Your task to perform on an android device: What's on my calendar today? Image 0: 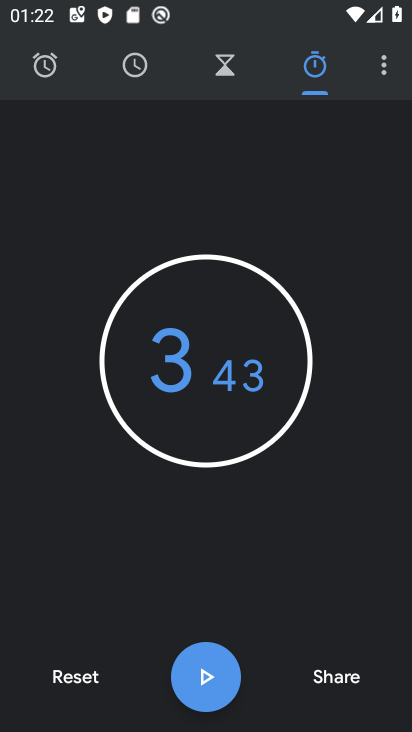
Step 0: press home button
Your task to perform on an android device: What's on my calendar today? Image 1: 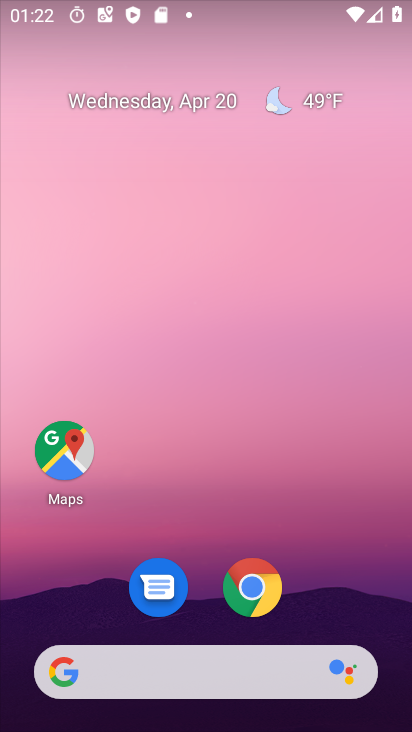
Step 1: drag from (355, 607) to (410, 575)
Your task to perform on an android device: What's on my calendar today? Image 2: 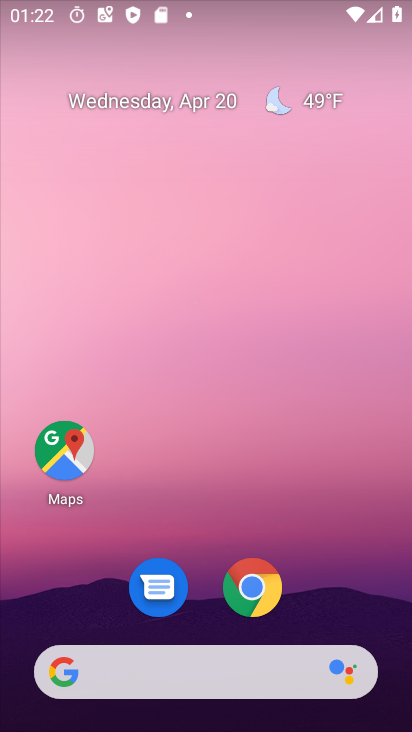
Step 2: drag from (375, 628) to (390, 3)
Your task to perform on an android device: What's on my calendar today? Image 3: 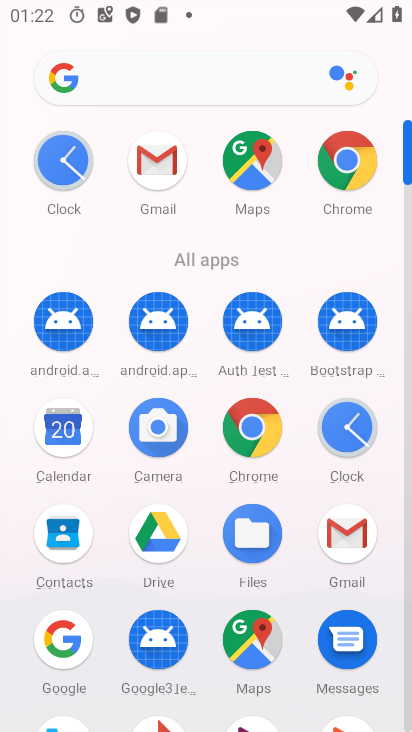
Step 3: click (59, 424)
Your task to perform on an android device: What's on my calendar today? Image 4: 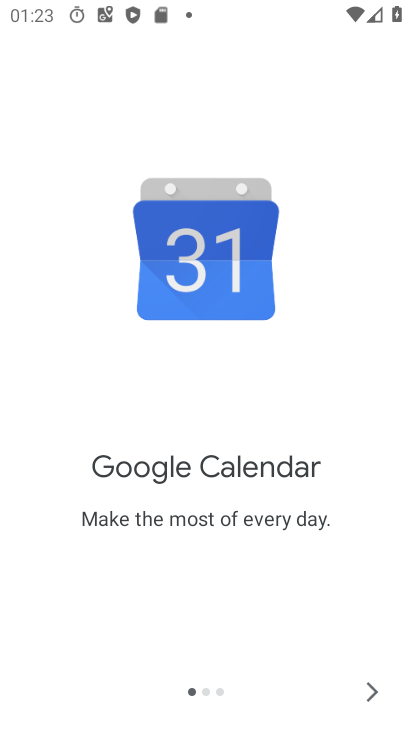
Step 4: click (371, 699)
Your task to perform on an android device: What's on my calendar today? Image 5: 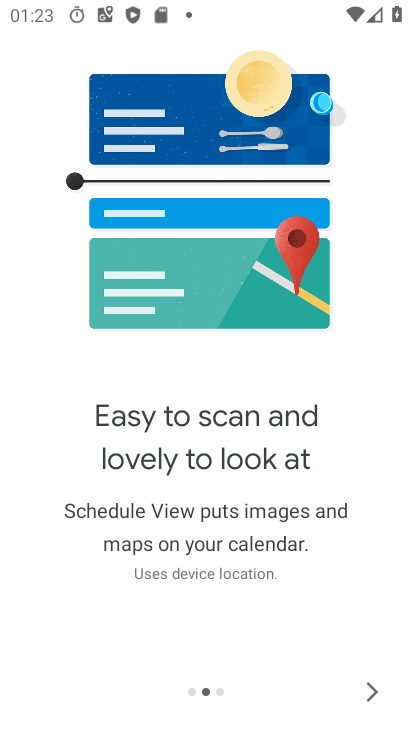
Step 5: click (371, 699)
Your task to perform on an android device: What's on my calendar today? Image 6: 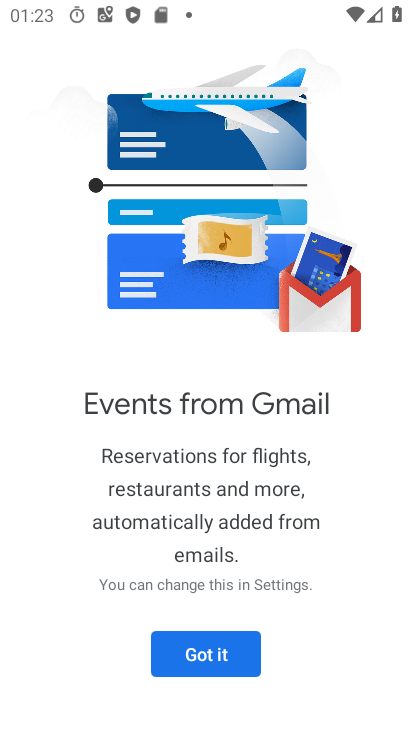
Step 6: click (202, 664)
Your task to perform on an android device: What's on my calendar today? Image 7: 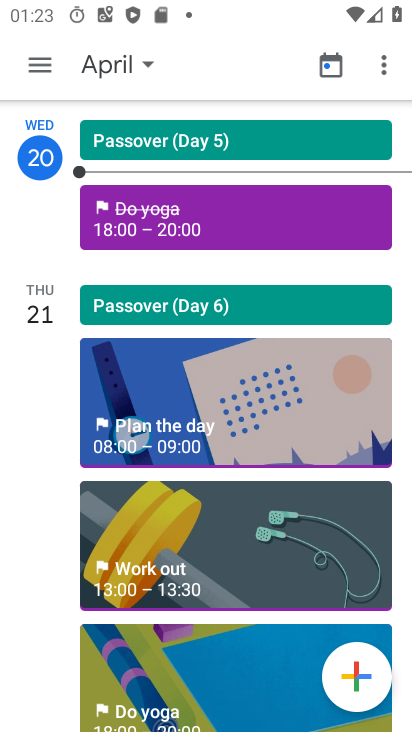
Step 7: click (146, 67)
Your task to perform on an android device: What's on my calendar today? Image 8: 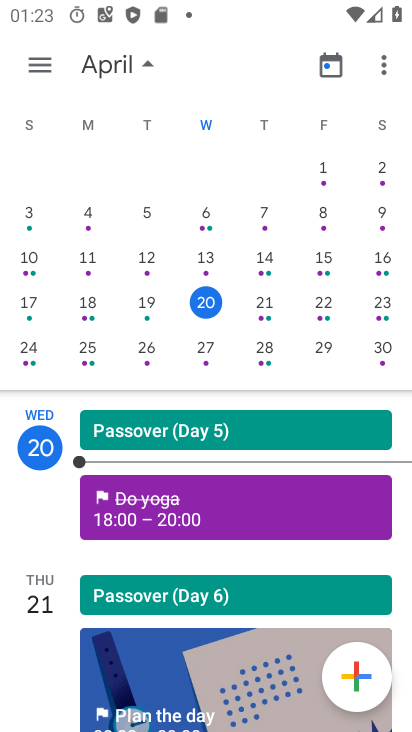
Step 8: click (206, 308)
Your task to perform on an android device: What's on my calendar today? Image 9: 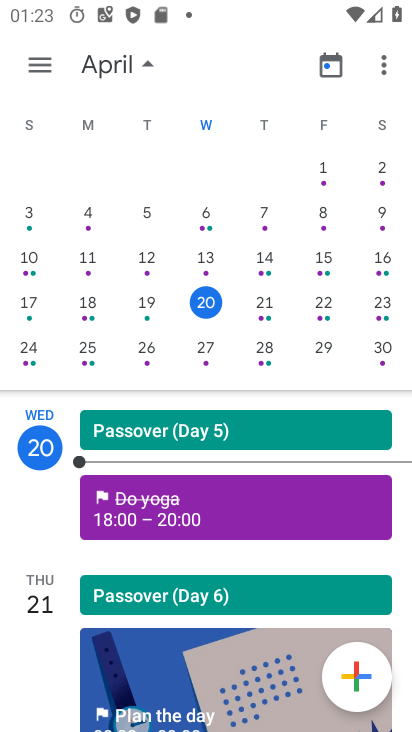
Step 9: click (39, 68)
Your task to perform on an android device: What's on my calendar today? Image 10: 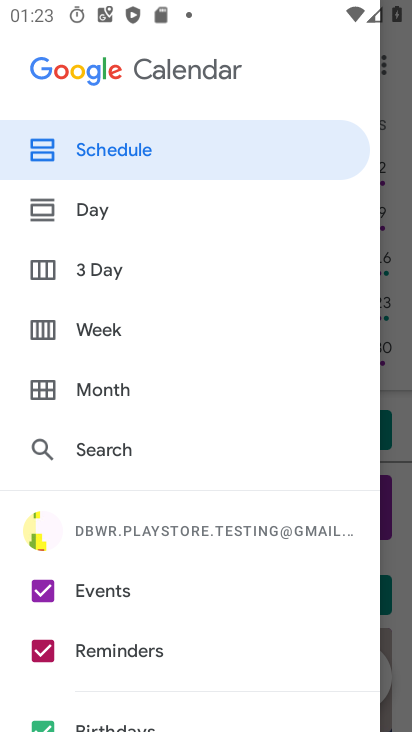
Step 10: click (127, 152)
Your task to perform on an android device: What's on my calendar today? Image 11: 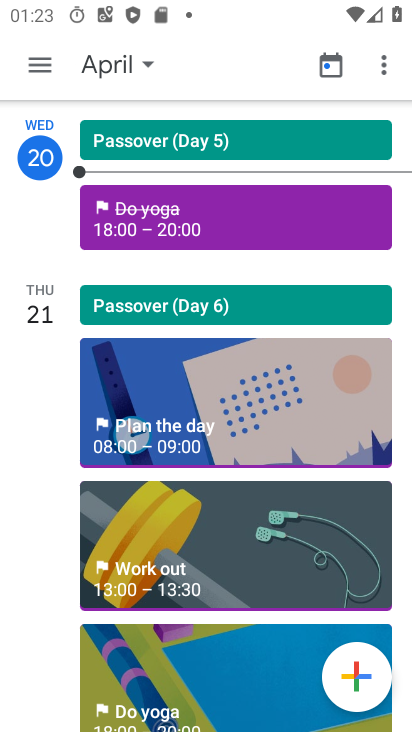
Step 11: click (170, 215)
Your task to perform on an android device: What's on my calendar today? Image 12: 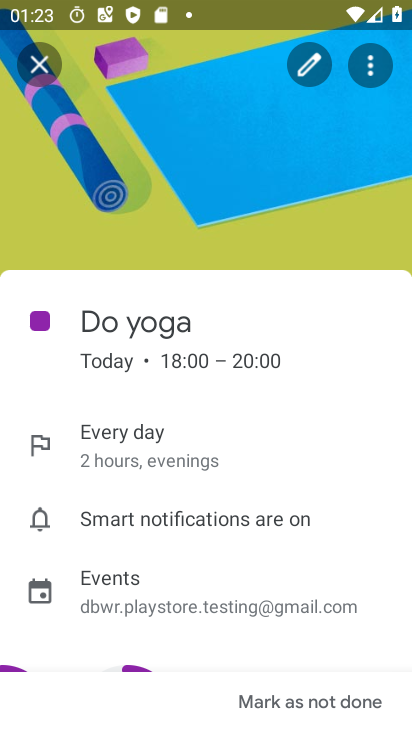
Step 12: task complete